Your task to perform on an android device: delete the emails in spam in the gmail app Image 0: 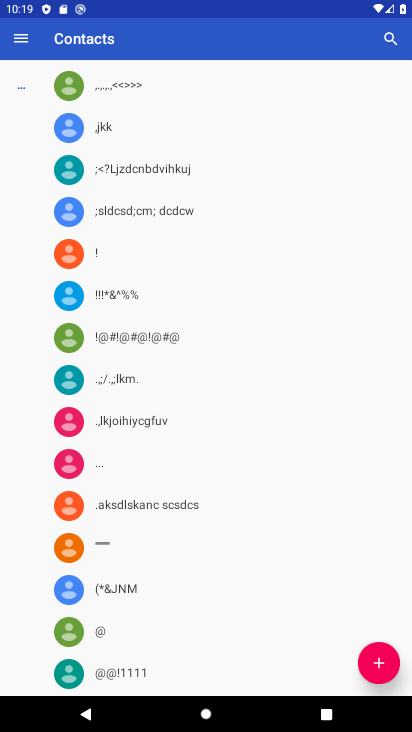
Step 0: press home button
Your task to perform on an android device: delete the emails in spam in the gmail app Image 1: 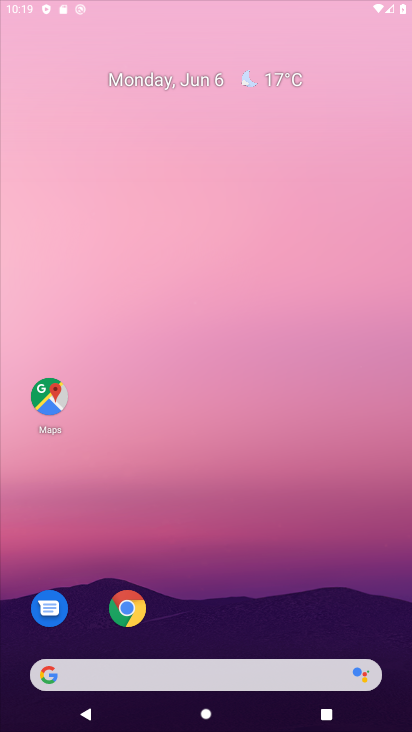
Step 1: drag from (199, 684) to (195, 329)
Your task to perform on an android device: delete the emails in spam in the gmail app Image 2: 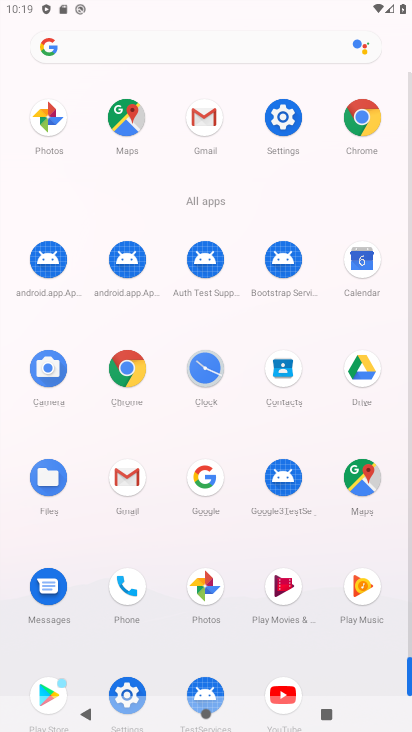
Step 2: click (133, 491)
Your task to perform on an android device: delete the emails in spam in the gmail app Image 3: 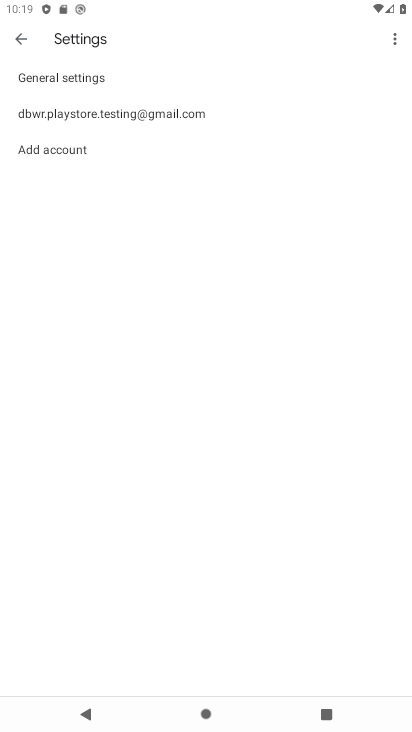
Step 3: click (19, 38)
Your task to perform on an android device: delete the emails in spam in the gmail app Image 4: 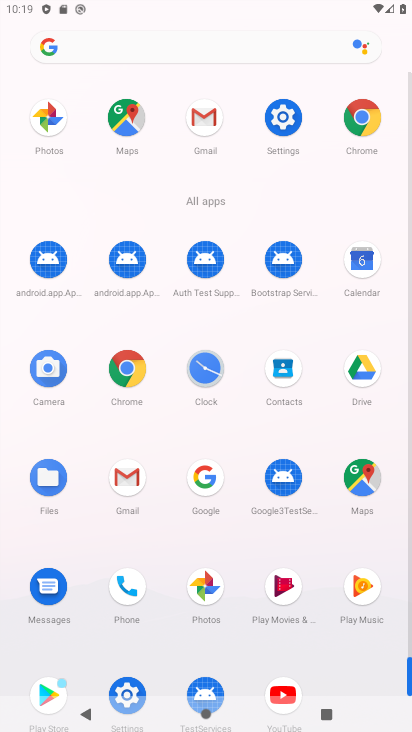
Step 4: click (119, 483)
Your task to perform on an android device: delete the emails in spam in the gmail app Image 5: 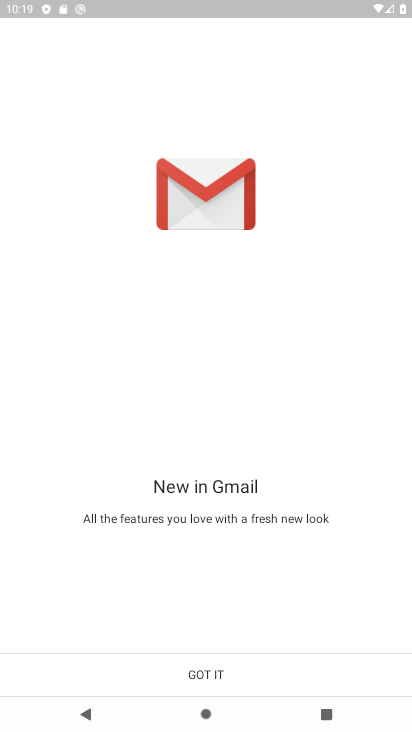
Step 5: click (250, 681)
Your task to perform on an android device: delete the emails in spam in the gmail app Image 6: 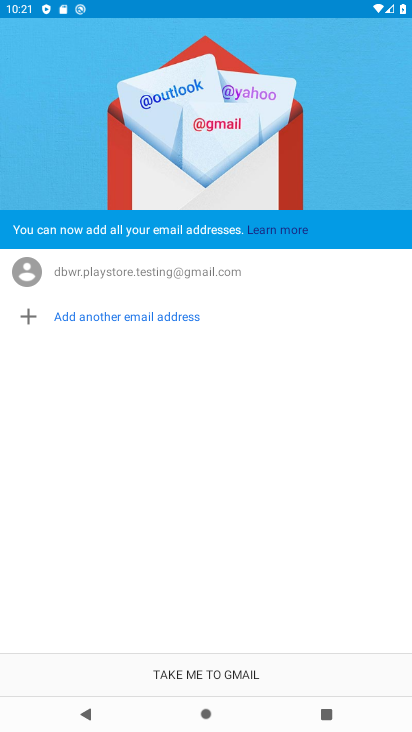
Step 6: click (274, 672)
Your task to perform on an android device: delete the emails in spam in the gmail app Image 7: 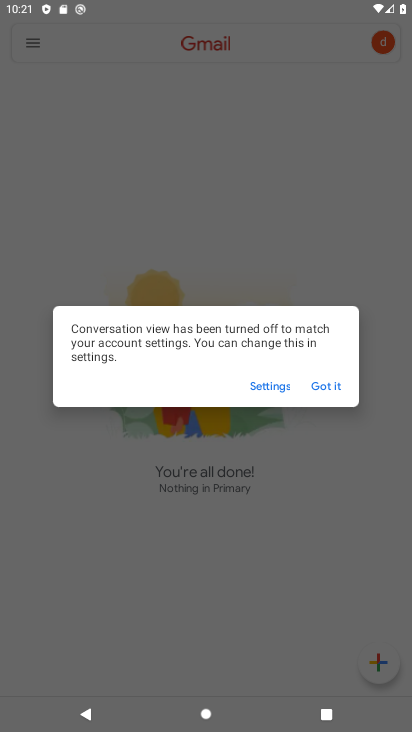
Step 7: click (330, 389)
Your task to perform on an android device: delete the emails in spam in the gmail app Image 8: 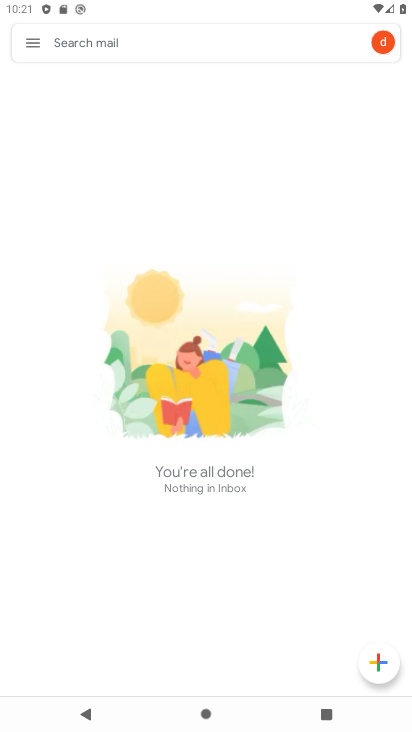
Step 8: click (36, 38)
Your task to perform on an android device: delete the emails in spam in the gmail app Image 9: 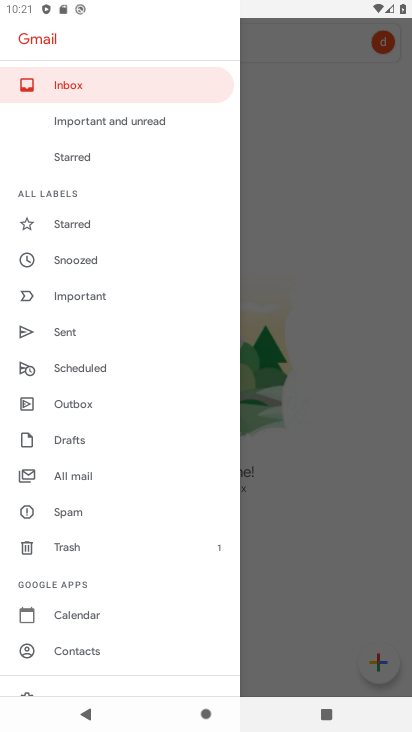
Step 9: click (117, 523)
Your task to perform on an android device: delete the emails in spam in the gmail app Image 10: 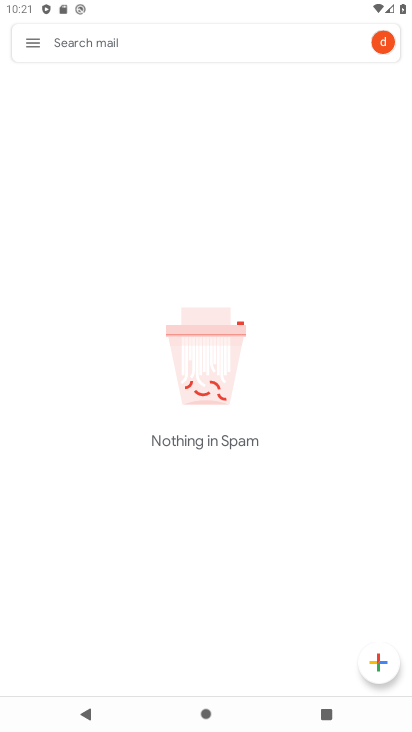
Step 10: task complete